Your task to perform on an android device: allow notifications from all sites in the chrome app Image 0: 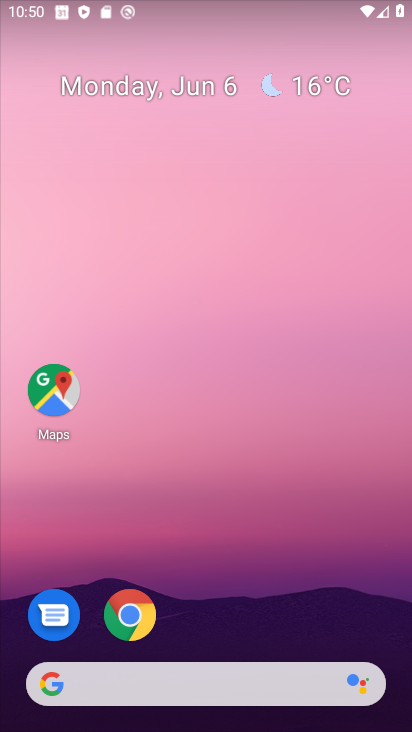
Step 0: click (117, 635)
Your task to perform on an android device: allow notifications from all sites in the chrome app Image 1: 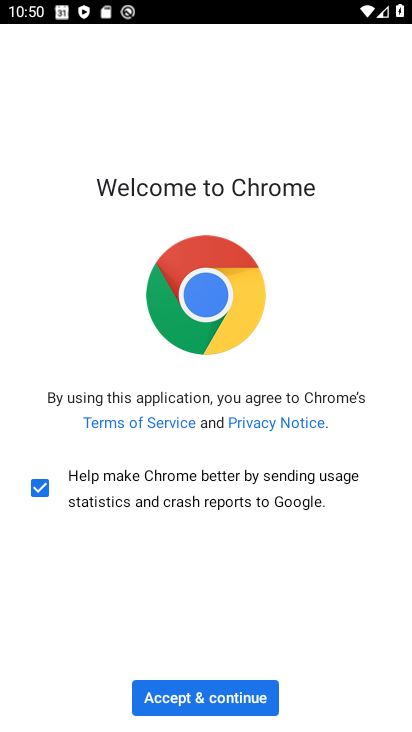
Step 1: click (196, 696)
Your task to perform on an android device: allow notifications from all sites in the chrome app Image 2: 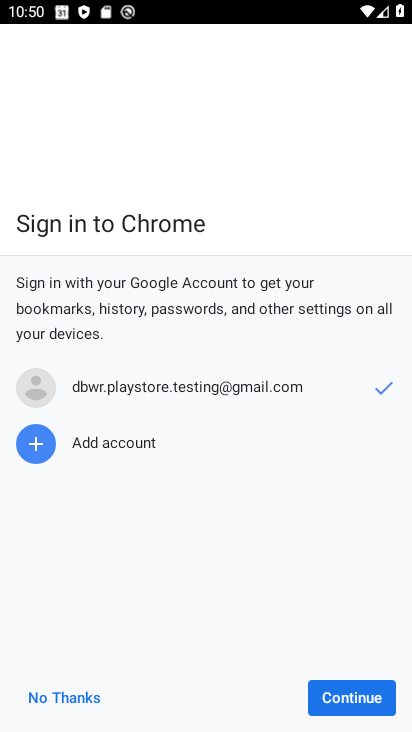
Step 2: click (341, 701)
Your task to perform on an android device: allow notifications from all sites in the chrome app Image 3: 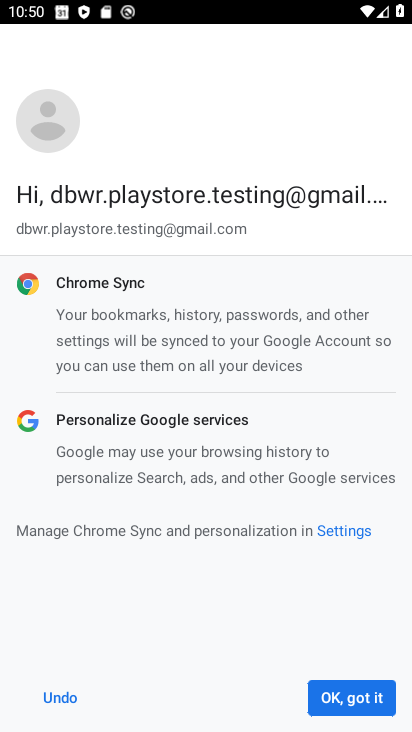
Step 3: click (334, 707)
Your task to perform on an android device: allow notifications from all sites in the chrome app Image 4: 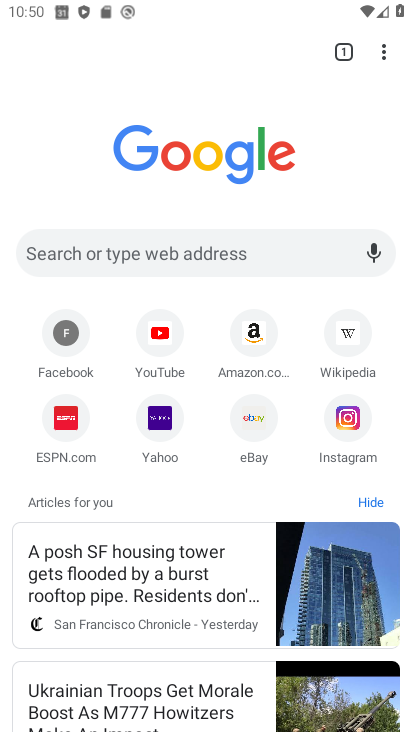
Step 4: click (387, 55)
Your task to perform on an android device: allow notifications from all sites in the chrome app Image 5: 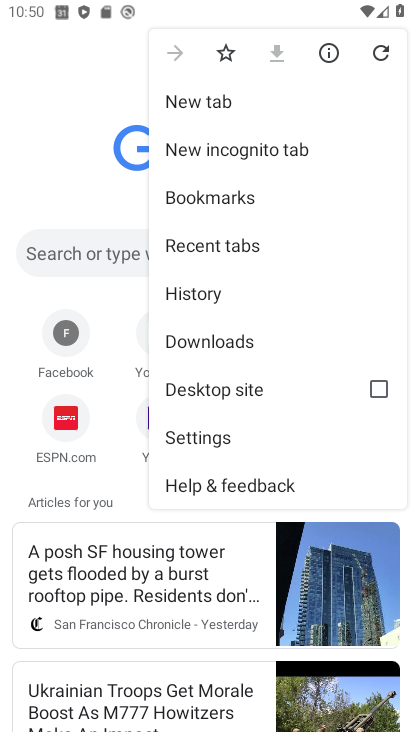
Step 5: click (191, 439)
Your task to perform on an android device: allow notifications from all sites in the chrome app Image 6: 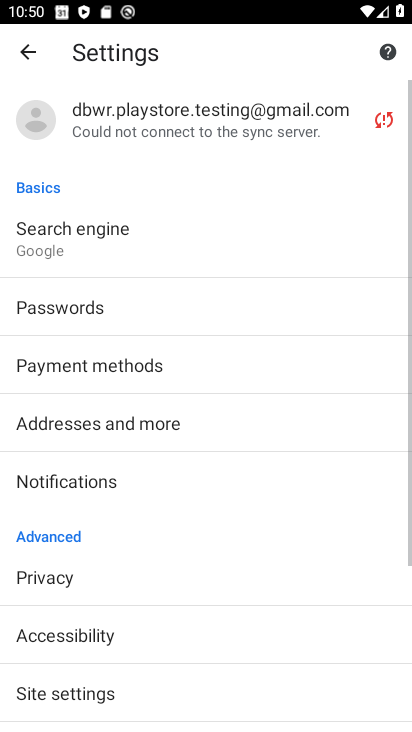
Step 6: click (90, 490)
Your task to perform on an android device: allow notifications from all sites in the chrome app Image 7: 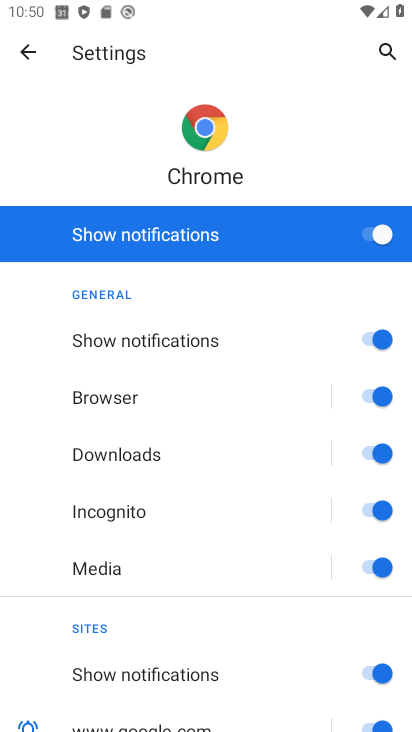
Step 7: drag from (237, 639) to (269, 329)
Your task to perform on an android device: allow notifications from all sites in the chrome app Image 8: 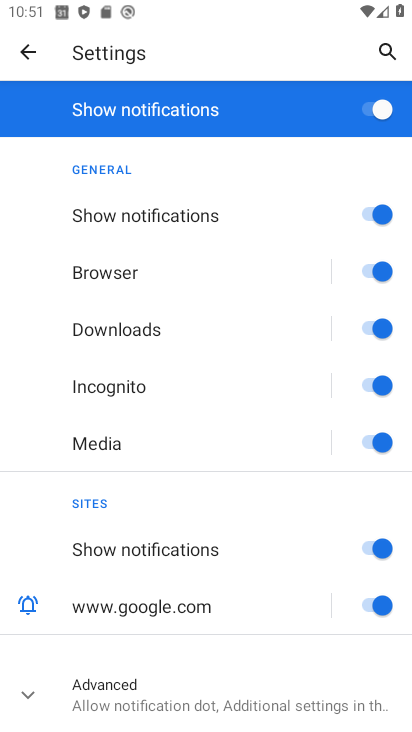
Step 8: click (273, 701)
Your task to perform on an android device: allow notifications from all sites in the chrome app Image 9: 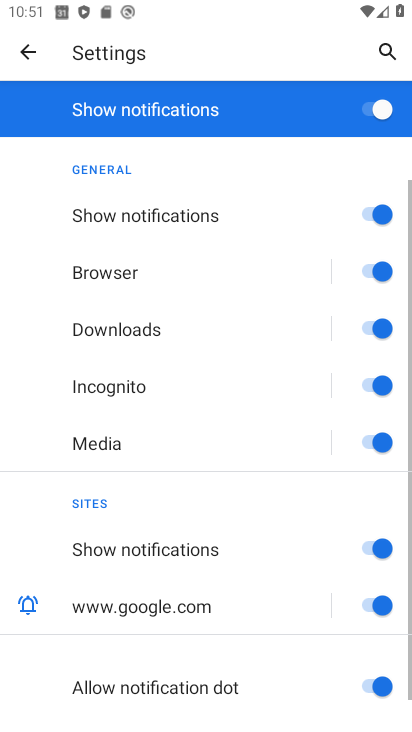
Step 9: task complete